Your task to perform on an android device: change the clock display to digital Image 0: 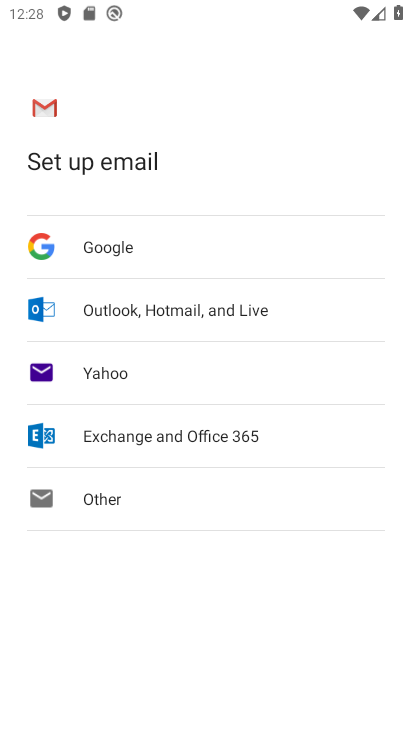
Step 0: press home button
Your task to perform on an android device: change the clock display to digital Image 1: 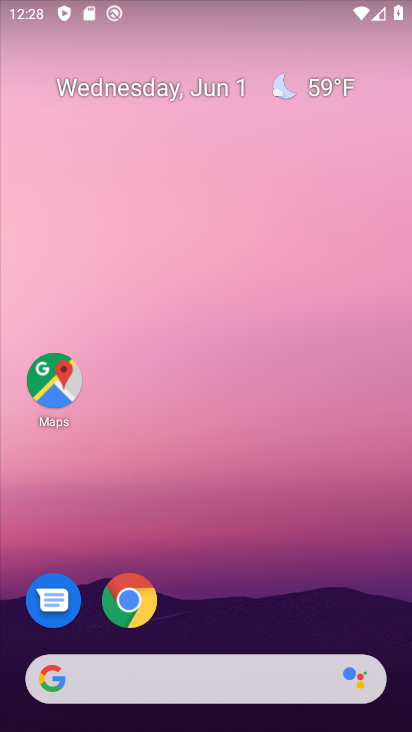
Step 1: drag from (334, 351) to (328, 0)
Your task to perform on an android device: change the clock display to digital Image 2: 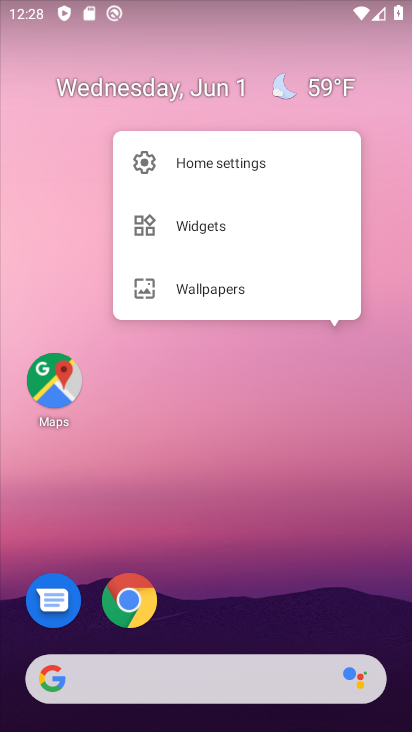
Step 2: click (179, 579)
Your task to perform on an android device: change the clock display to digital Image 3: 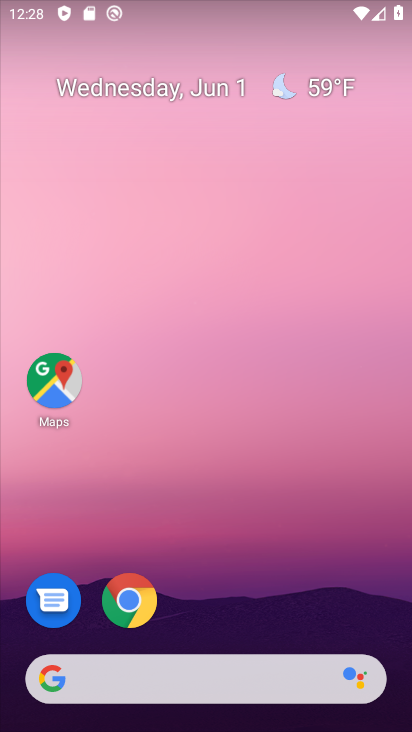
Step 3: drag from (152, 636) to (231, 147)
Your task to perform on an android device: change the clock display to digital Image 4: 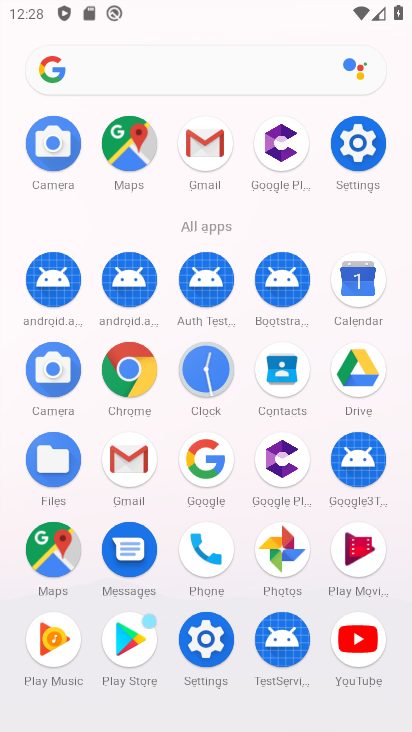
Step 4: click (210, 377)
Your task to perform on an android device: change the clock display to digital Image 5: 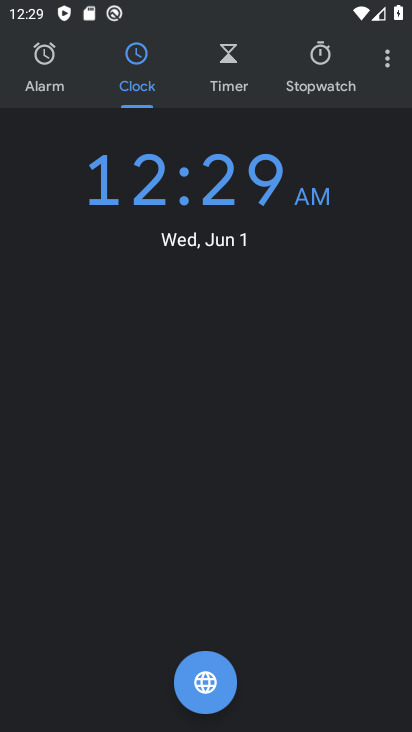
Step 5: click (395, 64)
Your task to perform on an android device: change the clock display to digital Image 6: 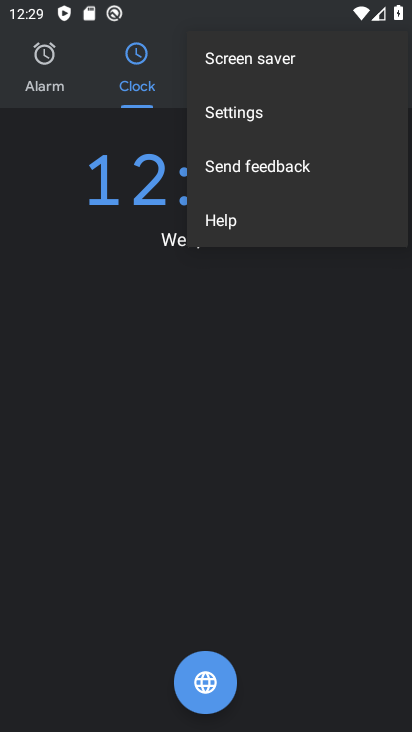
Step 6: click (223, 128)
Your task to perform on an android device: change the clock display to digital Image 7: 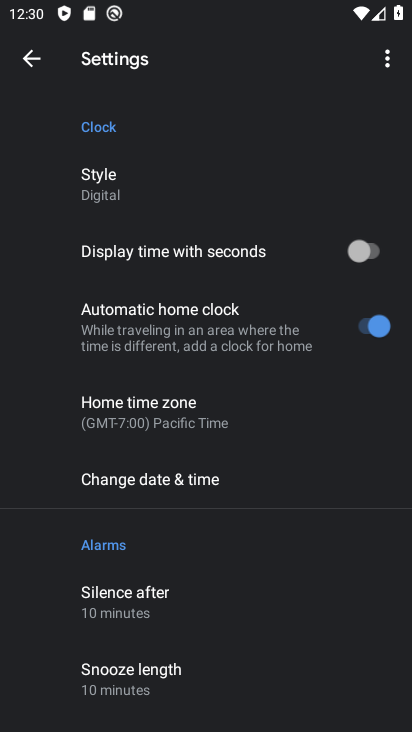
Step 7: task complete